Your task to perform on an android device: Find coffee shops on Maps Image 0: 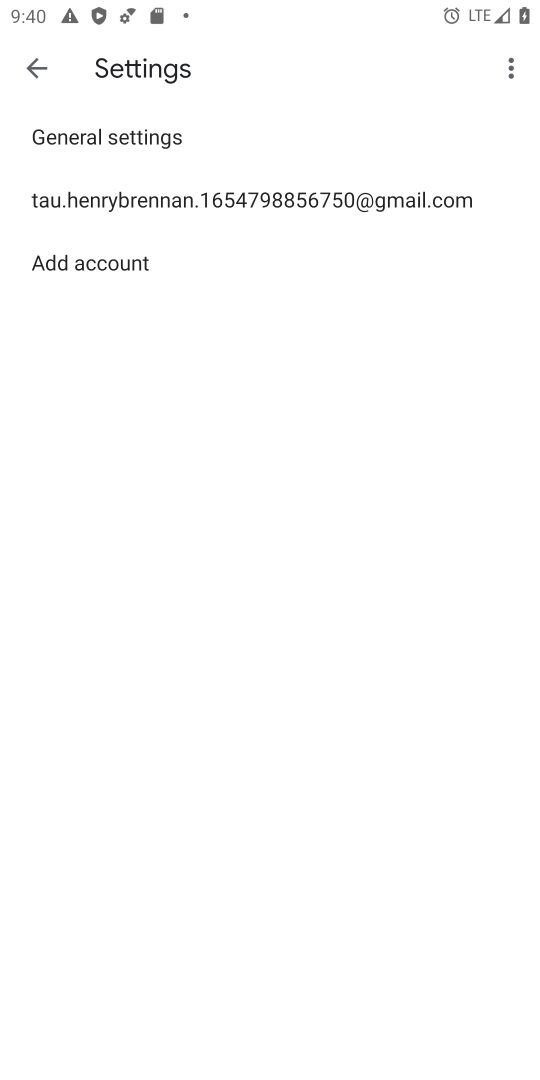
Step 0: press home button
Your task to perform on an android device: Find coffee shops on Maps Image 1: 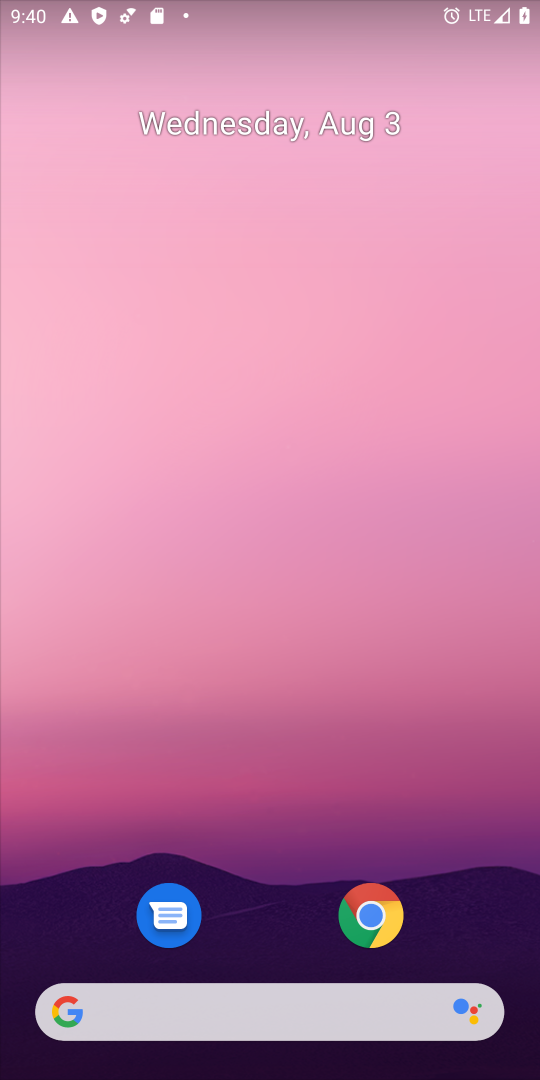
Step 1: drag from (279, 1018) to (295, 274)
Your task to perform on an android device: Find coffee shops on Maps Image 2: 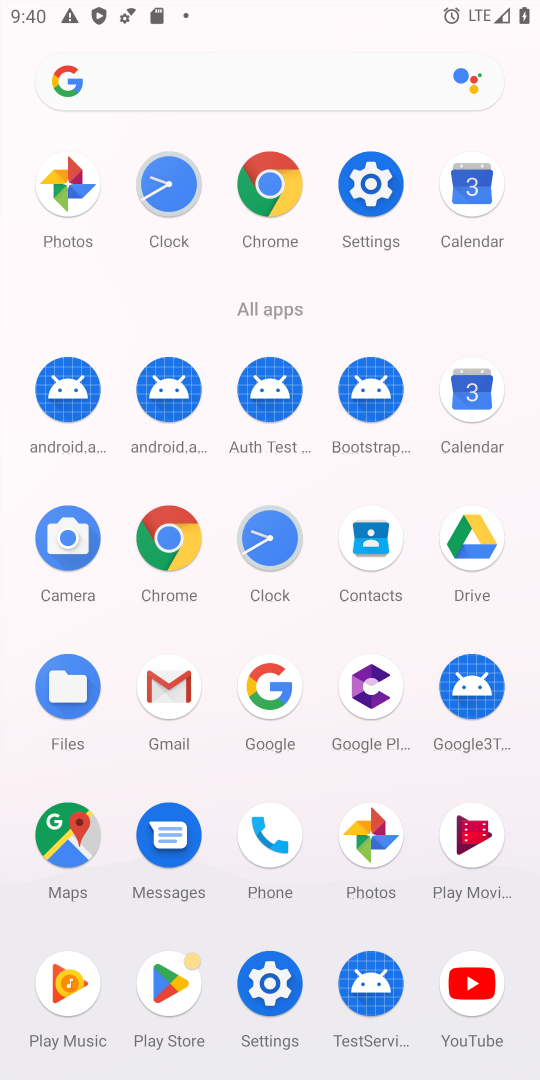
Step 2: click (85, 841)
Your task to perform on an android device: Find coffee shops on Maps Image 3: 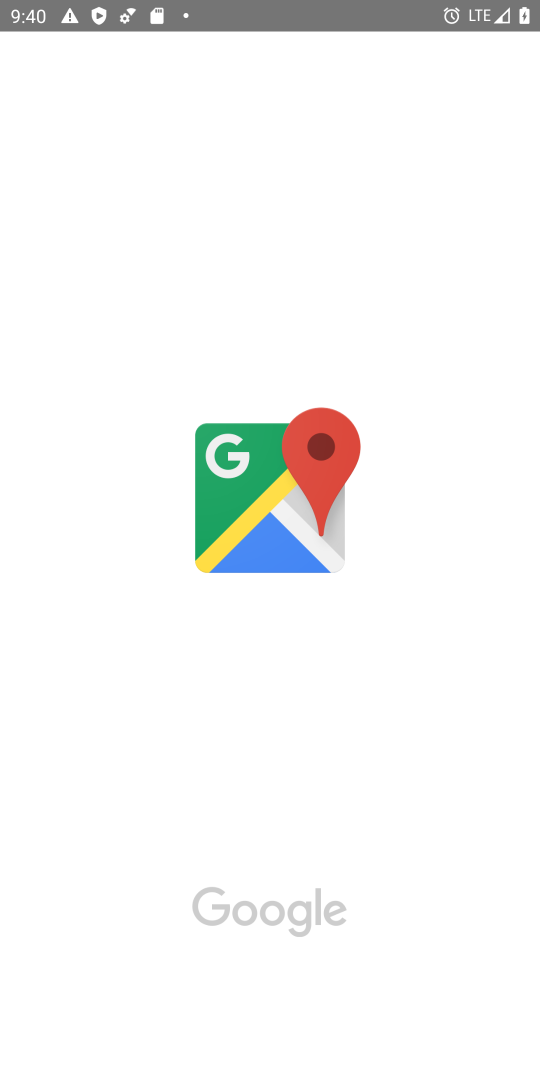
Step 3: task complete